Your task to perform on an android device: open app "Google Maps" Image 0: 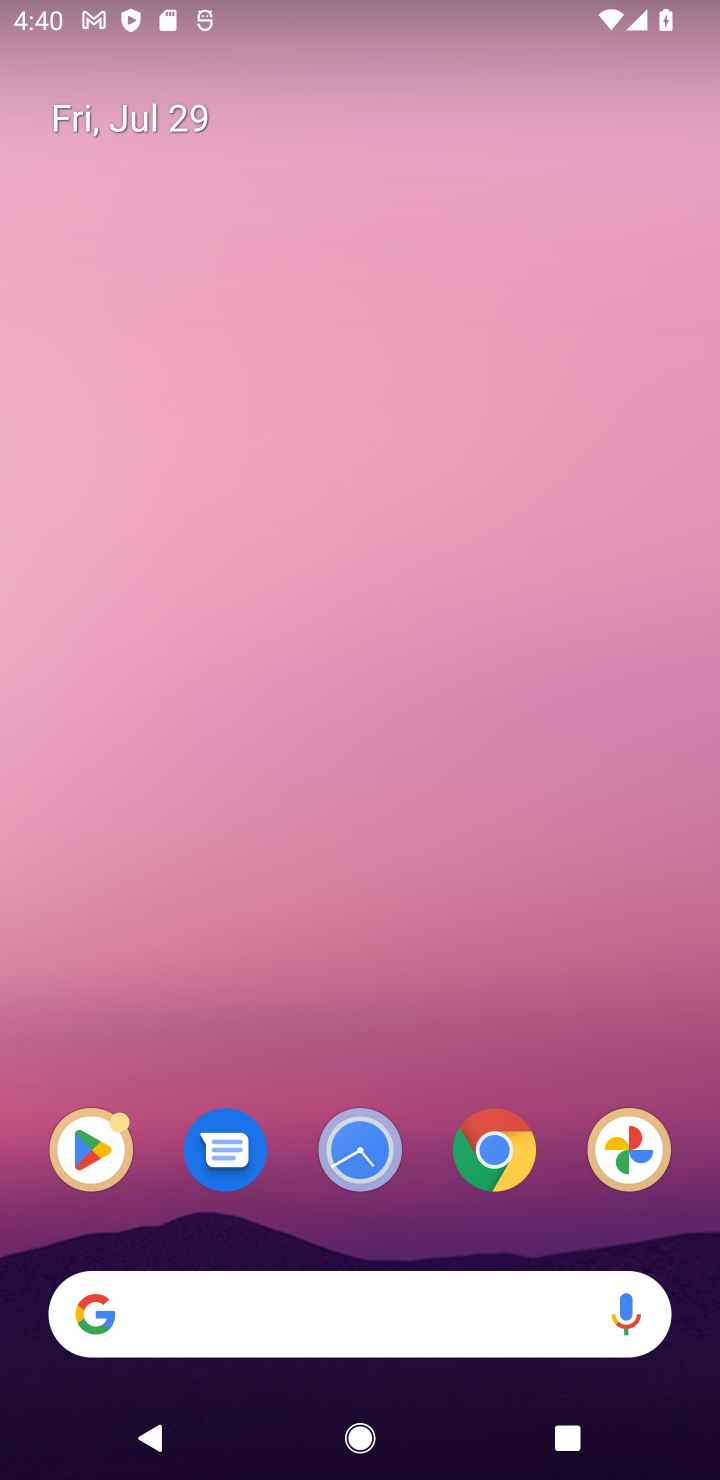
Step 0: drag from (386, 1252) to (349, 391)
Your task to perform on an android device: open app "Google Maps" Image 1: 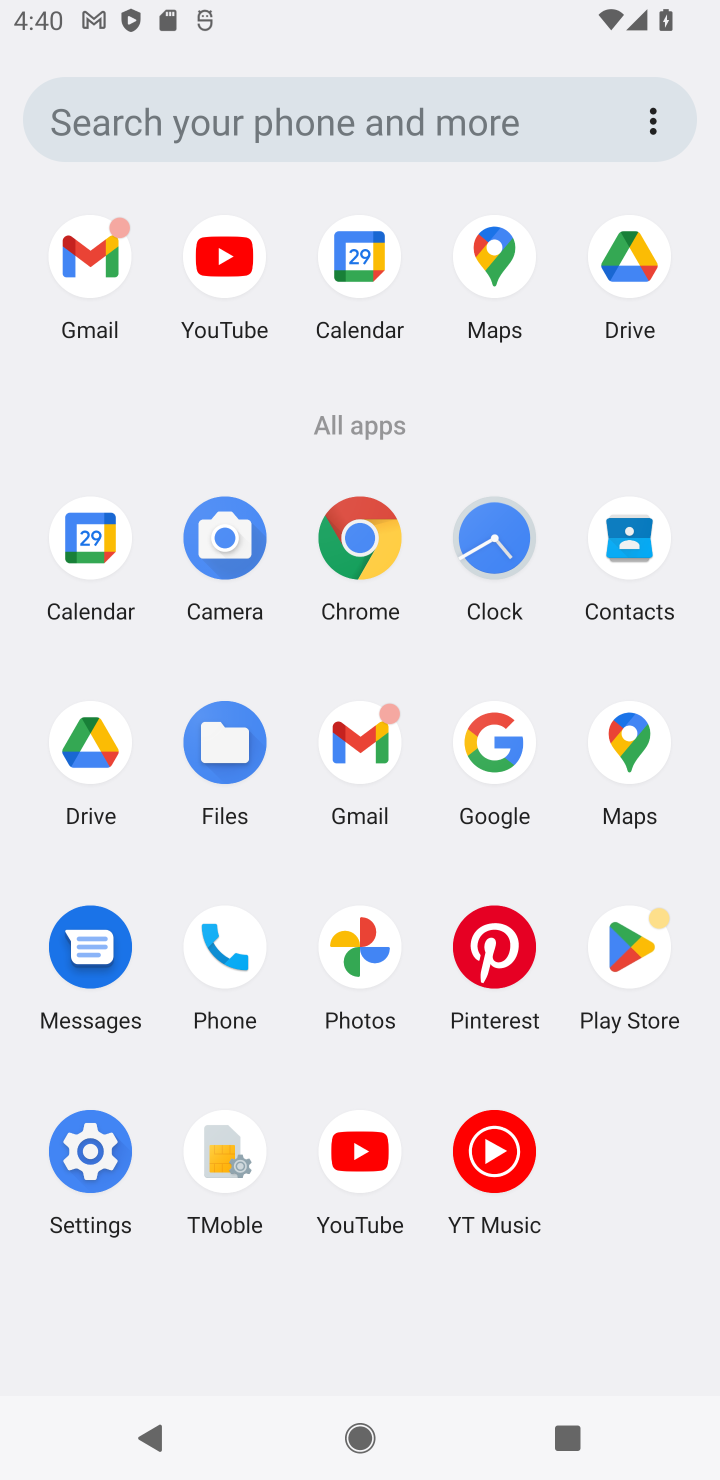
Step 1: click (500, 275)
Your task to perform on an android device: open app "Google Maps" Image 2: 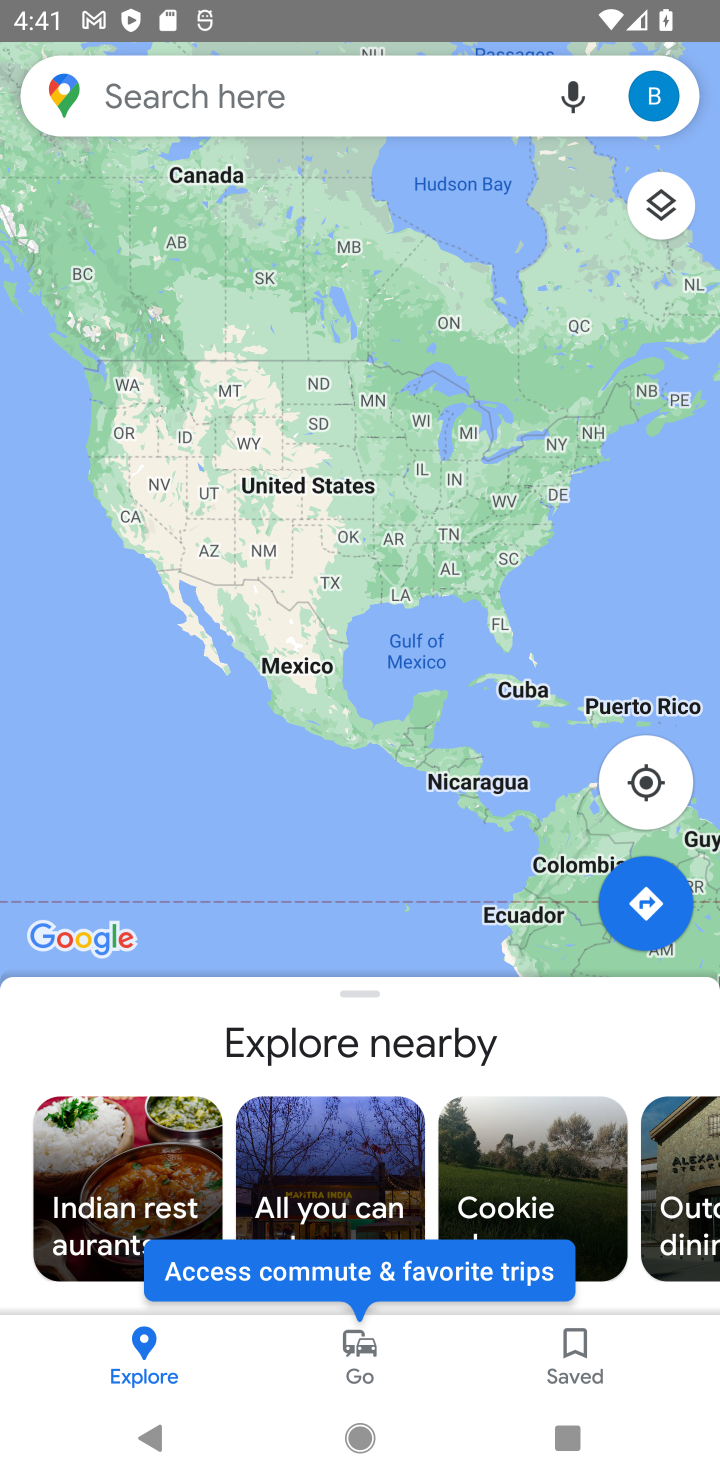
Step 2: task complete